Your task to perform on an android device: Set an alarm for 7am Image 0: 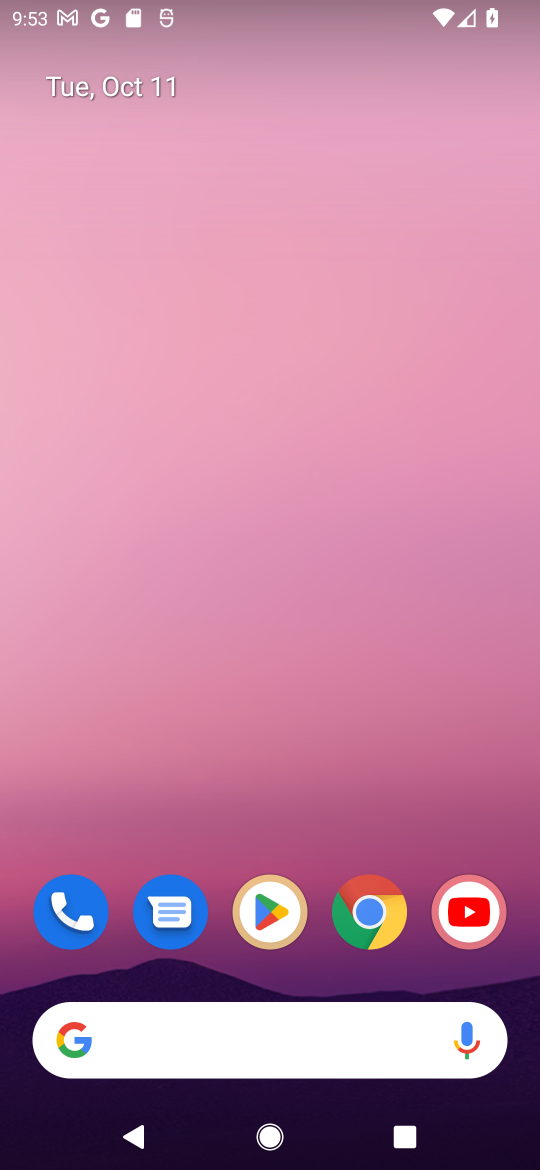
Step 0: drag from (419, 971) to (385, 234)
Your task to perform on an android device: Set an alarm for 7am Image 1: 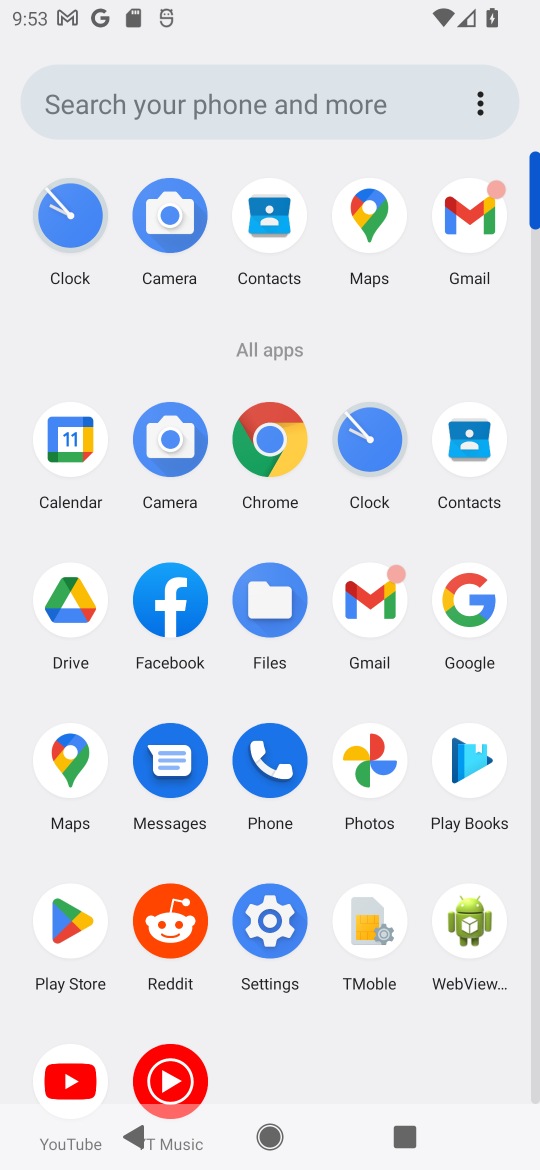
Step 1: click (366, 434)
Your task to perform on an android device: Set an alarm for 7am Image 2: 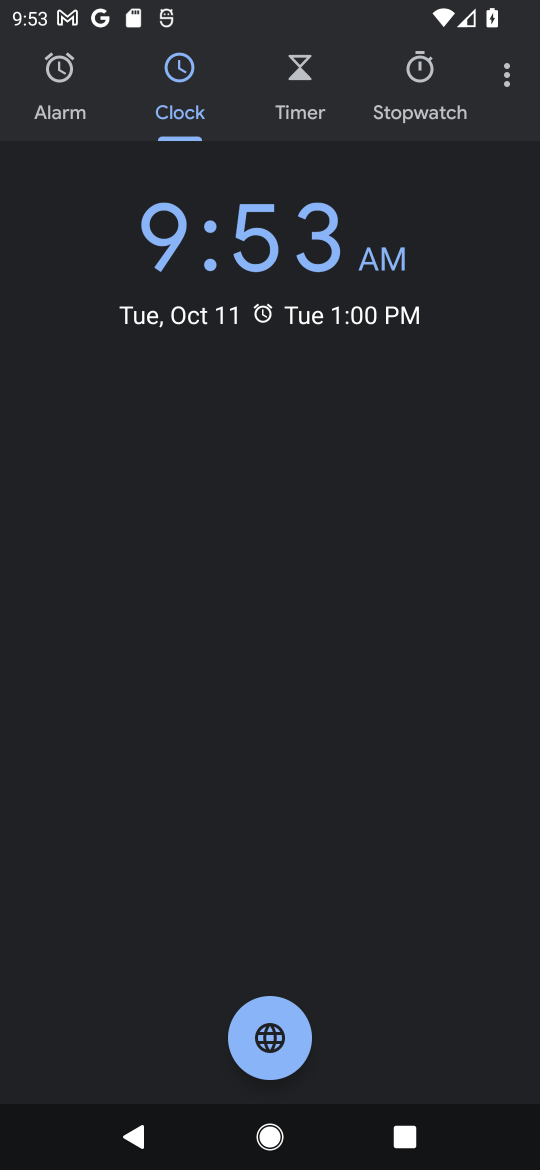
Step 2: click (42, 60)
Your task to perform on an android device: Set an alarm for 7am Image 3: 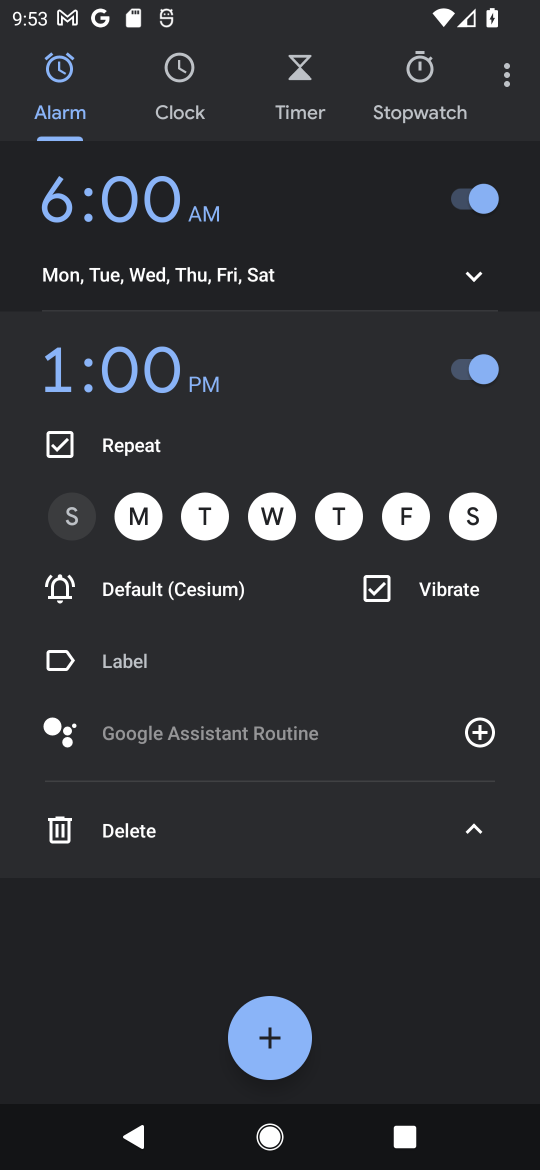
Step 3: click (109, 194)
Your task to perform on an android device: Set an alarm for 7am Image 4: 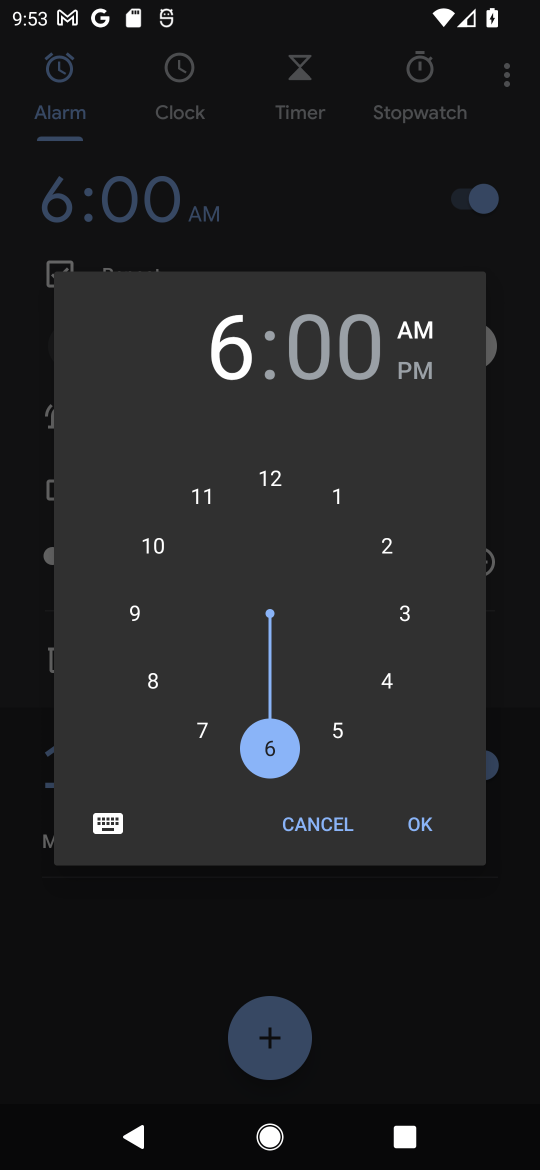
Step 4: click (198, 737)
Your task to perform on an android device: Set an alarm for 7am Image 5: 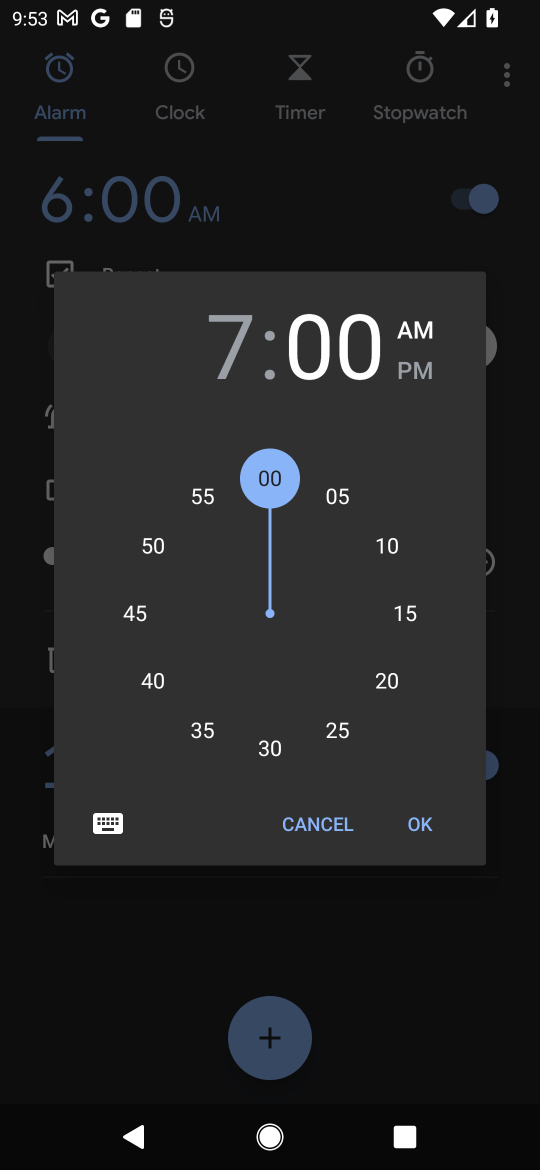
Step 5: click (418, 828)
Your task to perform on an android device: Set an alarm for 7am Image 6: 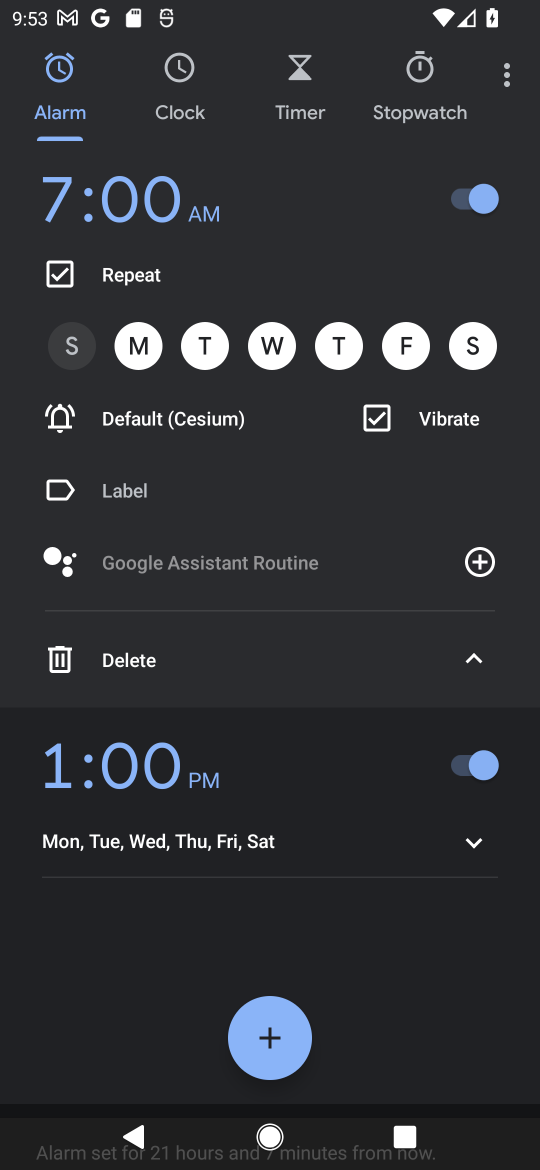
Step 6: click (468, 654)
Your task to perform on an android device: Set an alarm for 7am Image 7: 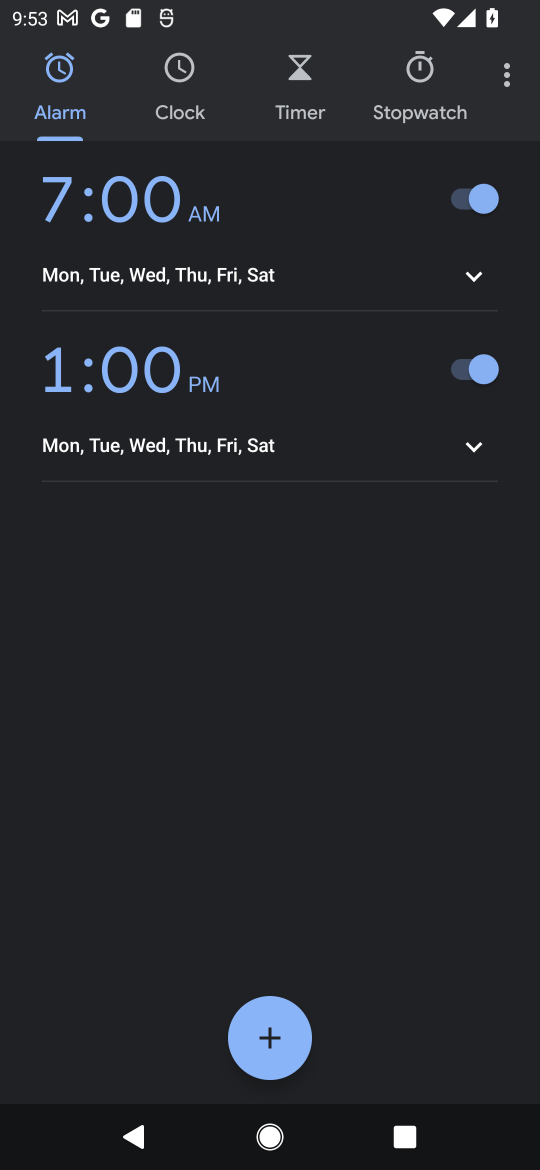
Step 7: task complete